Your task to perform on an android device: empty trash in google photos Image 0: 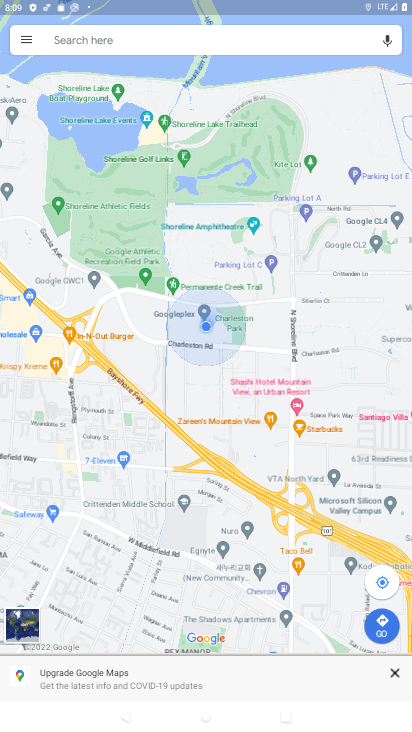
Step 0: press home button
Your task to perform on an android device: empty trash in google photos Image 1: 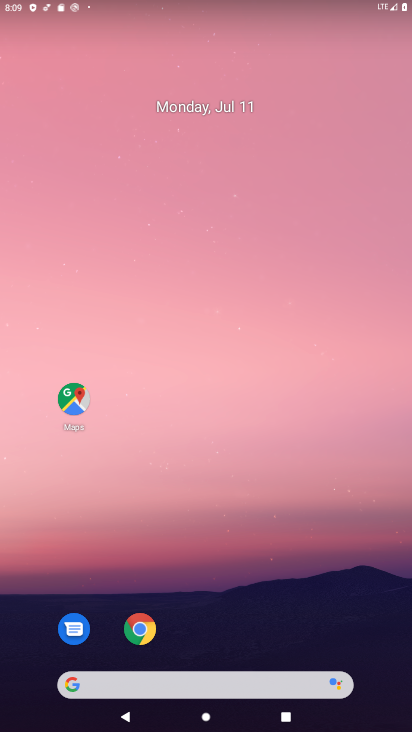
Step 1: drag from (196, 636) to (386, 6)
Your task to perform on an android device: empty trash in google photos Image 2: 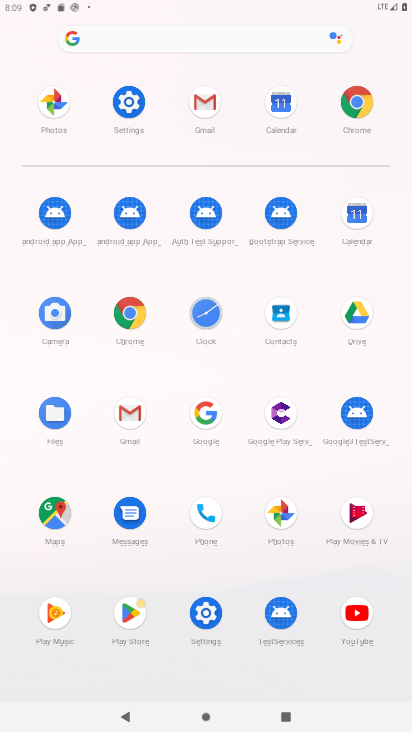
Step 2: click (272, 514)
Your task to perform on an android device: empty trash in google photos Image 3: 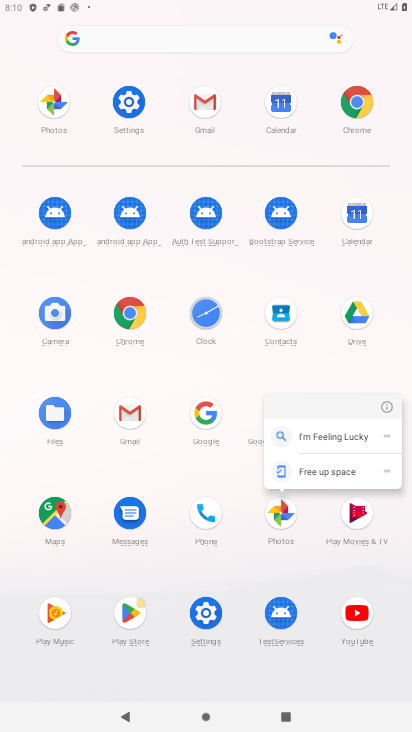
Step 3: click (277, 496)
Your task to perform on an android device: empty trash in google photos Image 4: 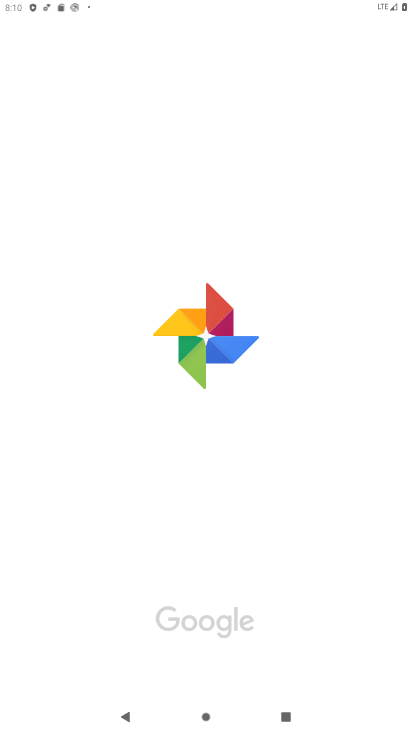
Step 4: click (277, 496)
Your task to perform on an android device: empty trash in google photos Image 5: 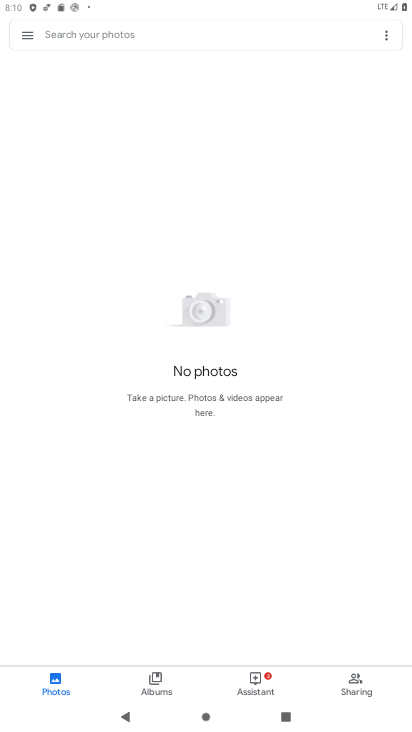
Step 5: click (17, 36)
Your task to perform on an android device: empty trash in google photos Image 6: 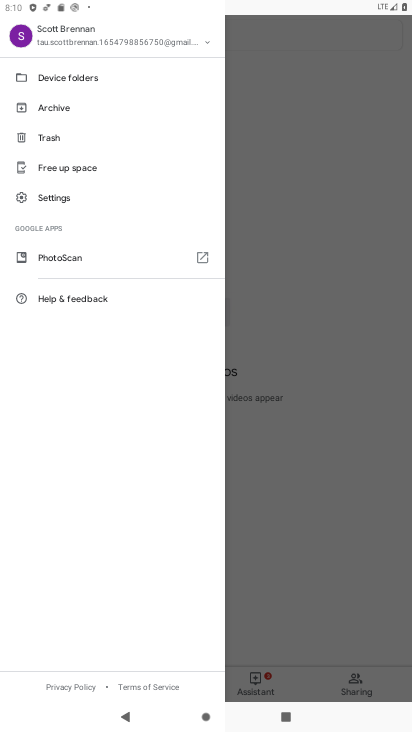
Step 6: click (70, 139)
Your task to perform on an android device: empty trash in google photos Image 7: 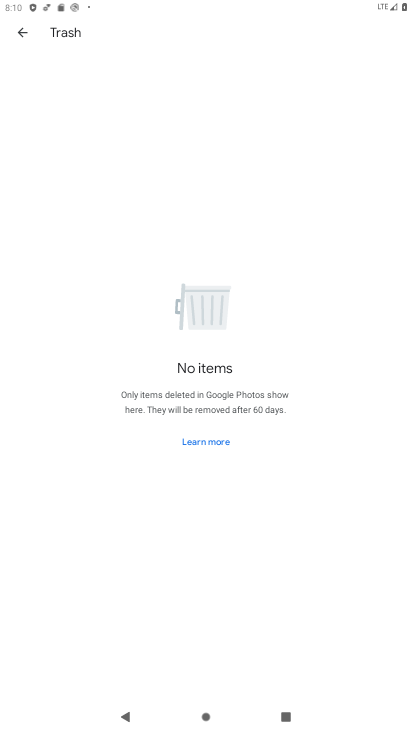
Step 7: task complete